Your task to perform on an android device: move an email to a new category in the gmail app Image 0: 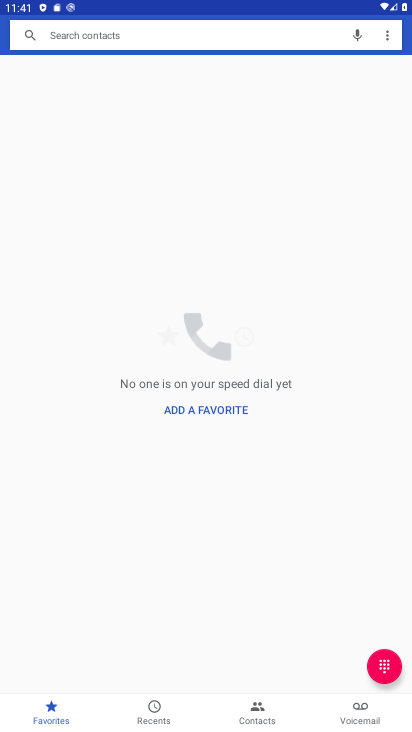
Step 0: task complete